Your task to perform on an android device: turn off priority inbox in the gmail app Image 0: 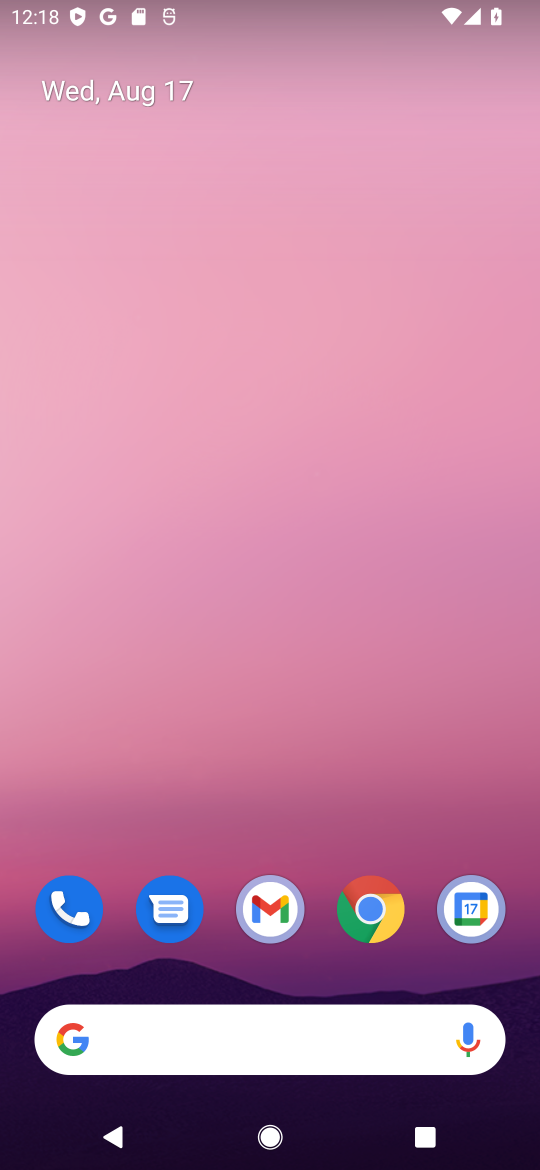
Step 0: click (276, 903)
Your task to perform on an android device: turn off priority inbox in the gmail app Image 1: 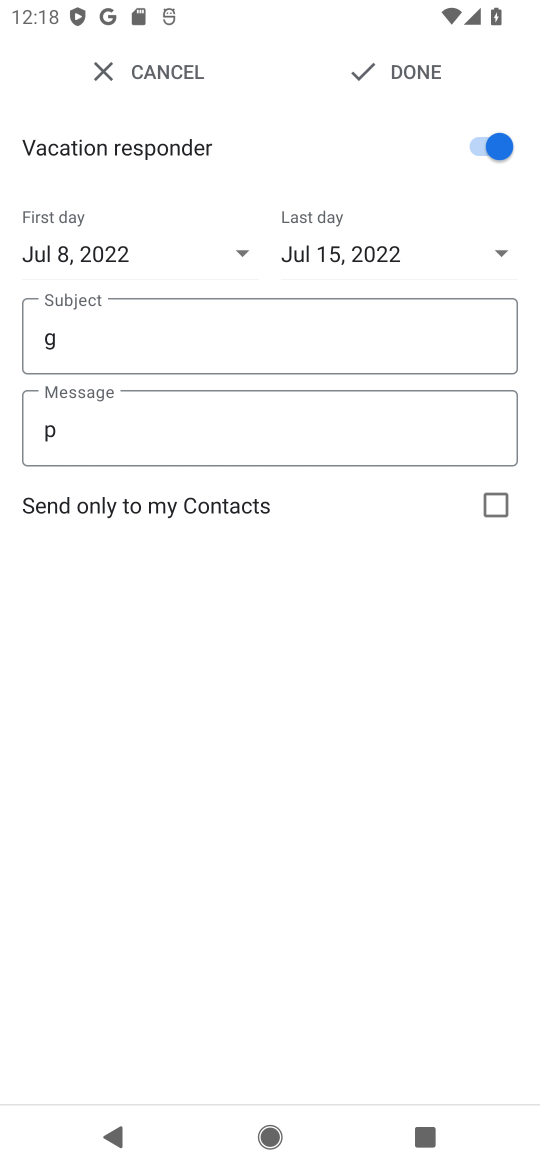
Step 1: click (378, 65)
Your task to perform on an android device: turn off priority inbox in the gmail app Image 2: 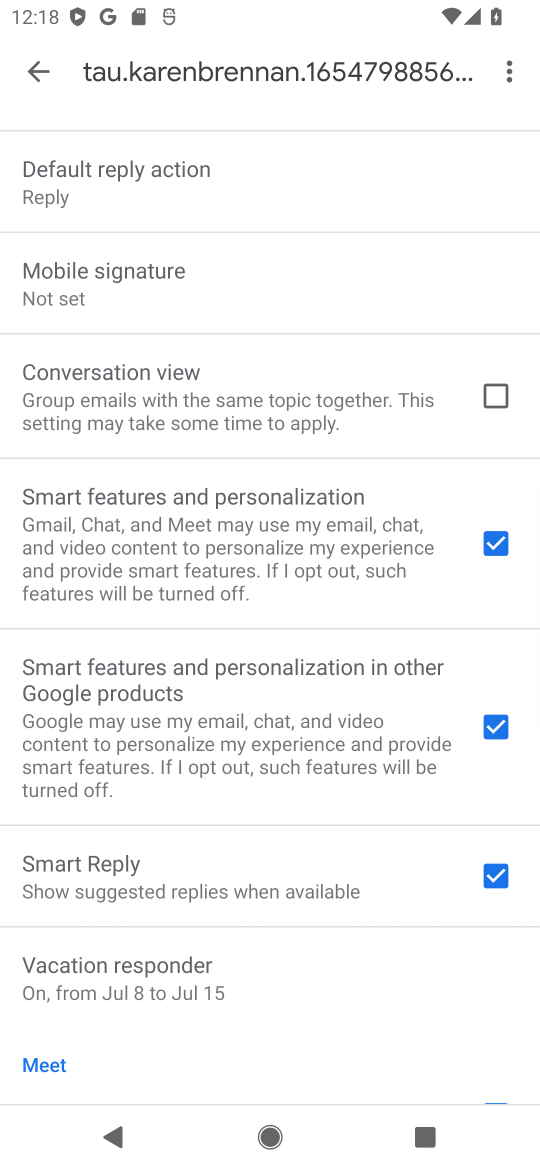
Step 2: drag from (249, 170) to (173, 538)
Your task to perform on an android device: turn off priority inbox in the gmail app Image 3: 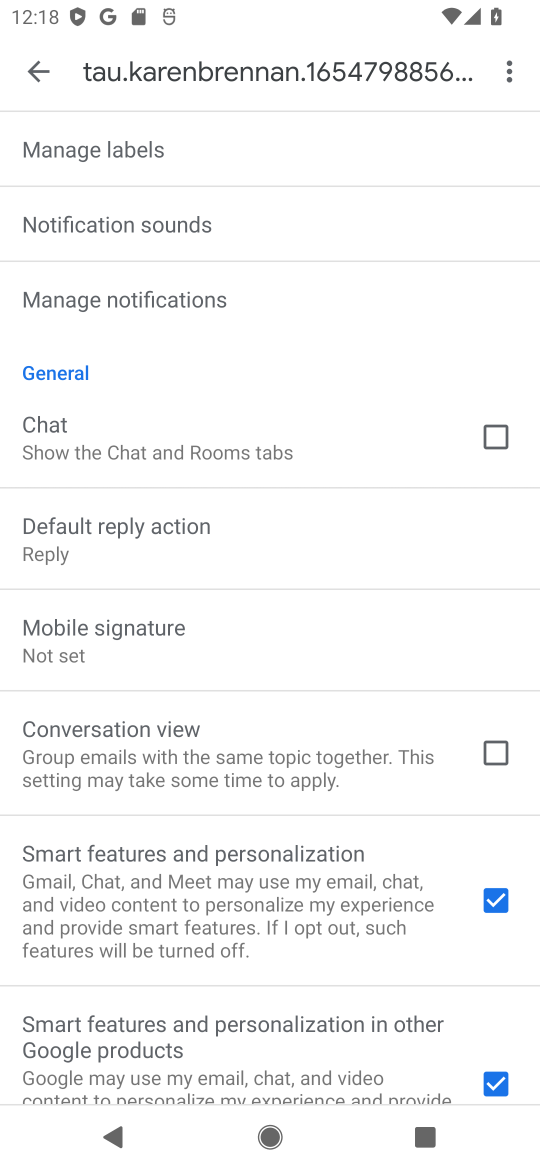
Step 3: drag from (212, 241) to (212, 548)
Your task to perform on an android device: turn off priority inbox in the gmail app Image 4: 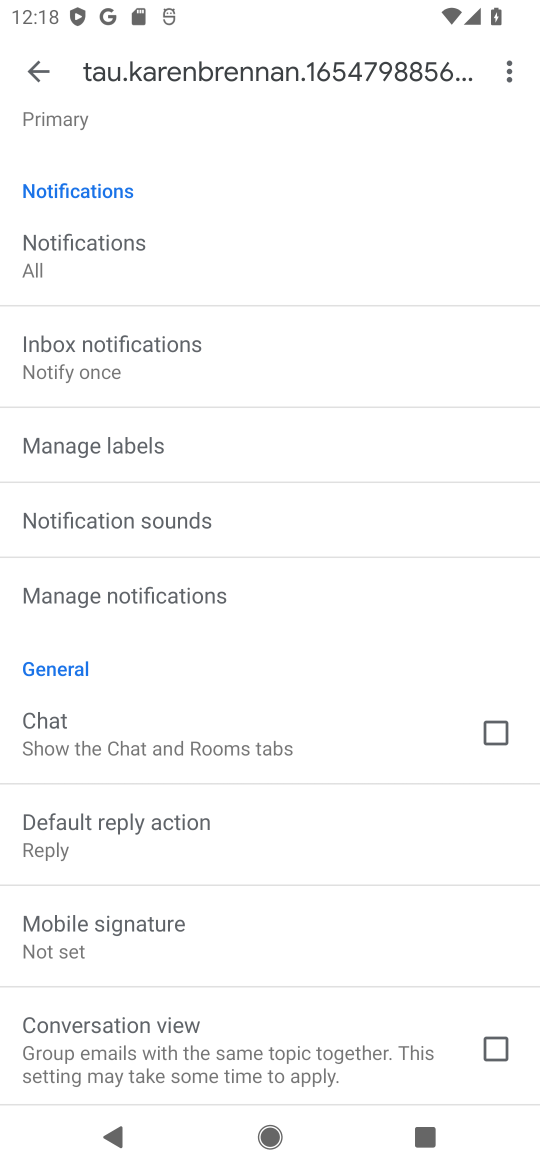
Step 4: drag from (196, 207) to (196, 477)
Your task to perform on an android device: turn off priority inbox in the gmail app Image 5: 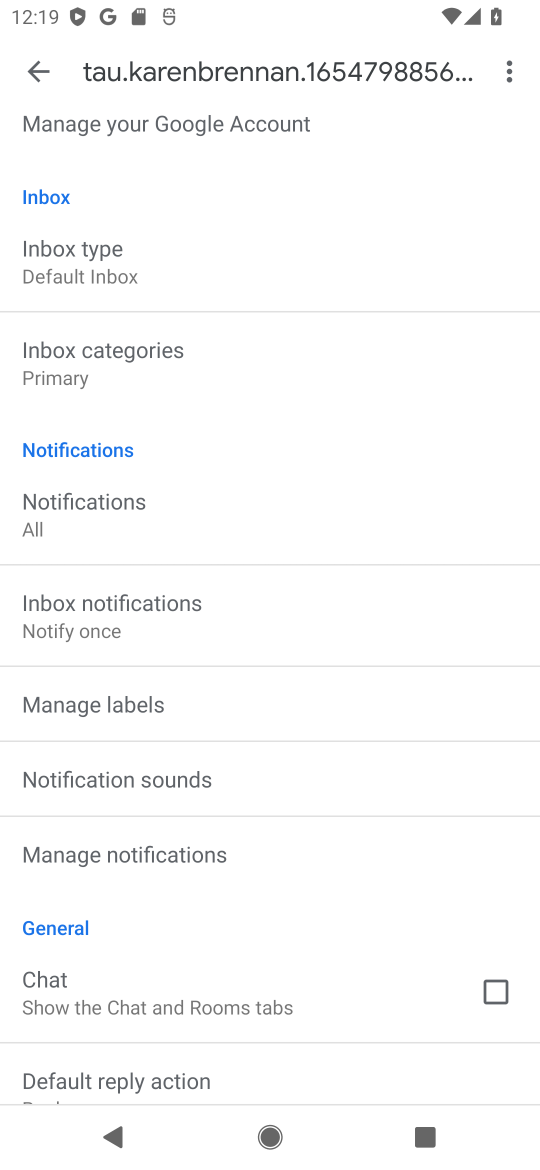
Step 5: click (79, 254)
Your task to perform on an android device: turn off priority inbox in the gmail app Image 6: 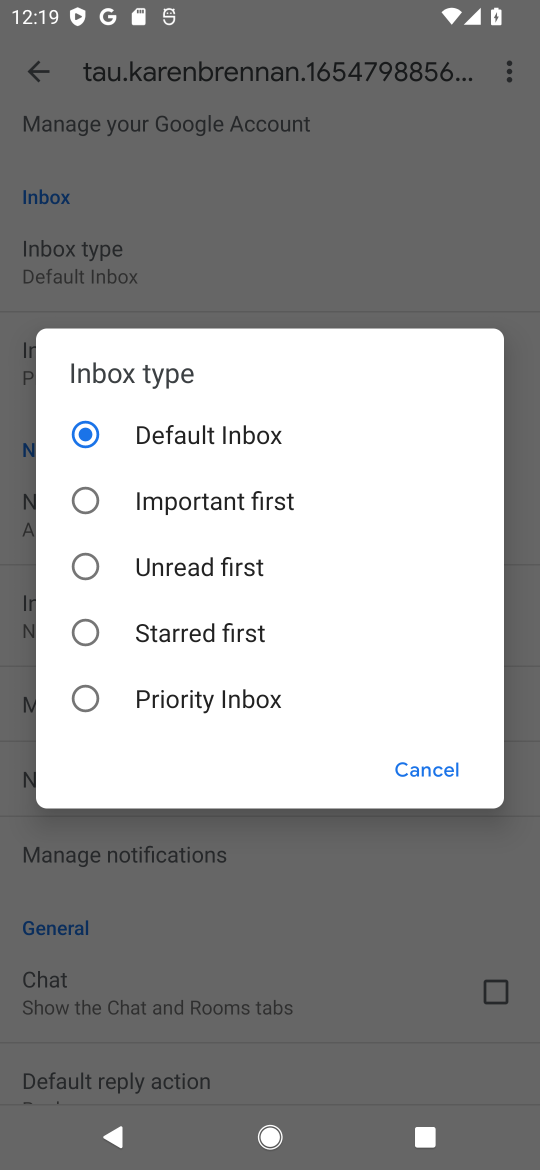
Step 6: task complete